Your task to perform on an android device: turn vacation reply on in the gmail app Image 0: 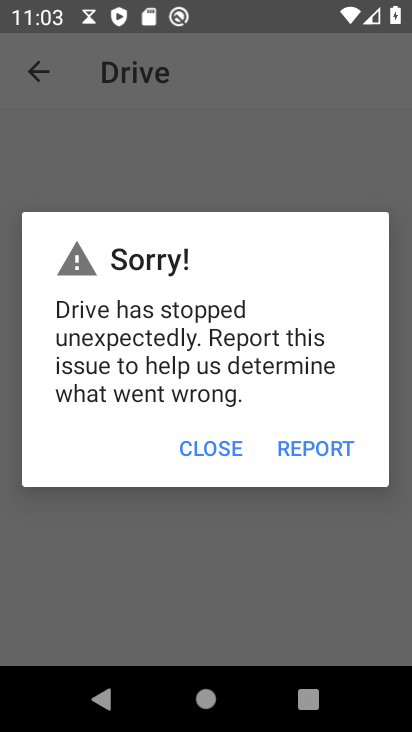
Step 0: press home button
Your task to perform on an android device: turn vacation reply on in the gmail app Image 1: 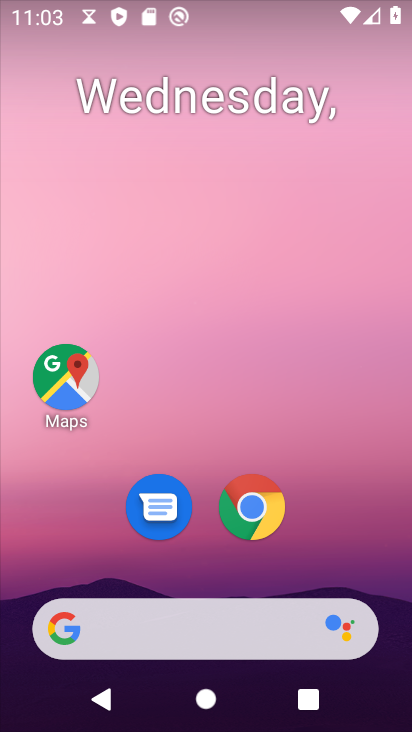
Step 1: drag from (285, 665) to (324, 147)
Your task to perform on an android device: turn vacation reply on in the gmail app Image 2: 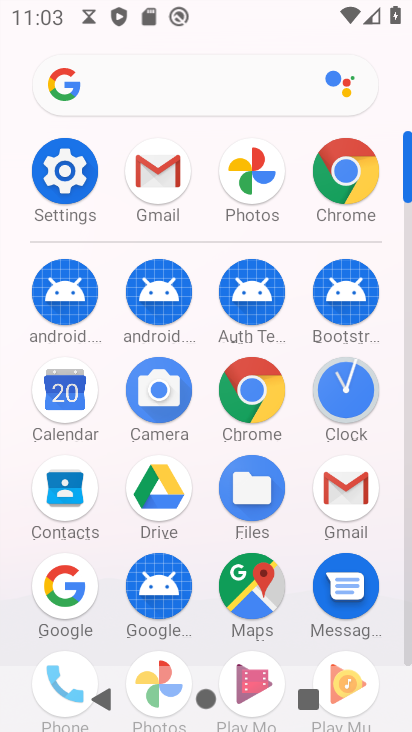
Step 2: click (139, 198)
Your task to perform on an android device: turn vacation reply on in the gmail app Image 3: 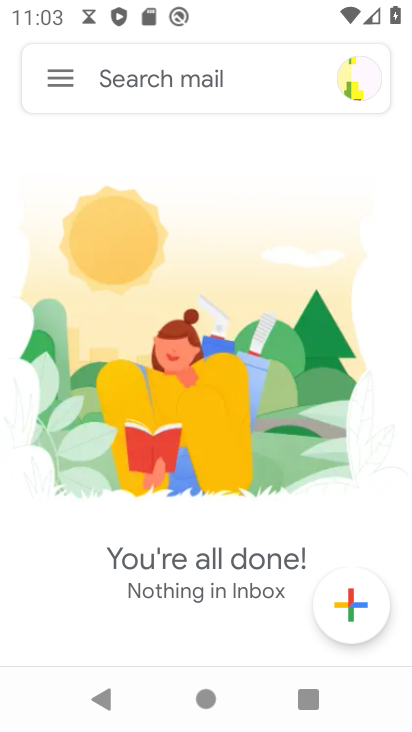
Step 3: click (61, 84)
Your task to perform on an android device: turn vacation reply on in the gmail app Image 4: 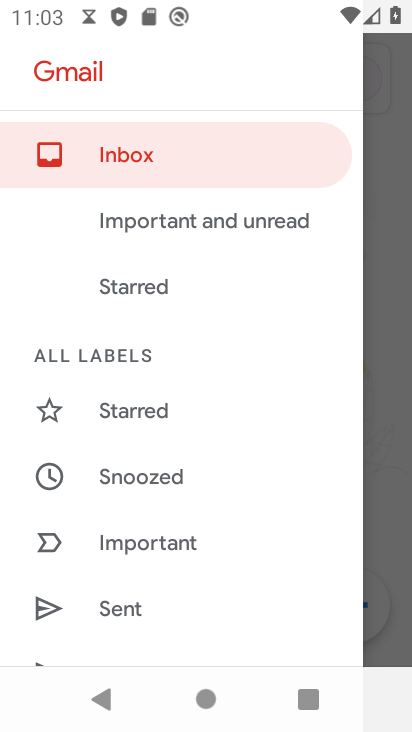
Step 4: drag from (160, 545) to (253, 252)
Your task to perform on an android device: turn vacation reply on in the gmail app Image 5: 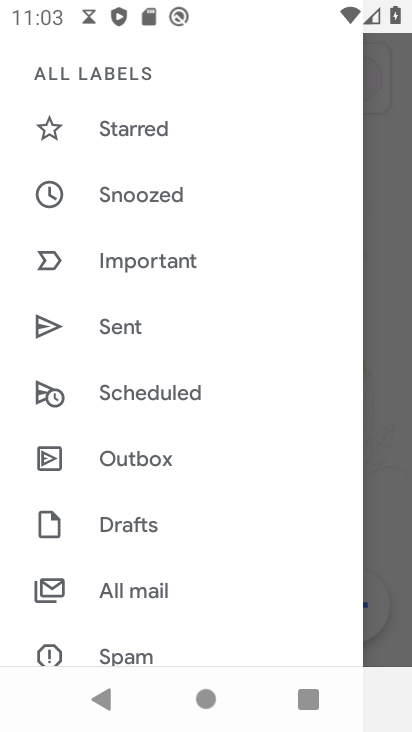
Step 5: drag from (138, 526) to (211, 199)
Your task to perform on an android device: turn vacation reply on in the gmail app Image 6: 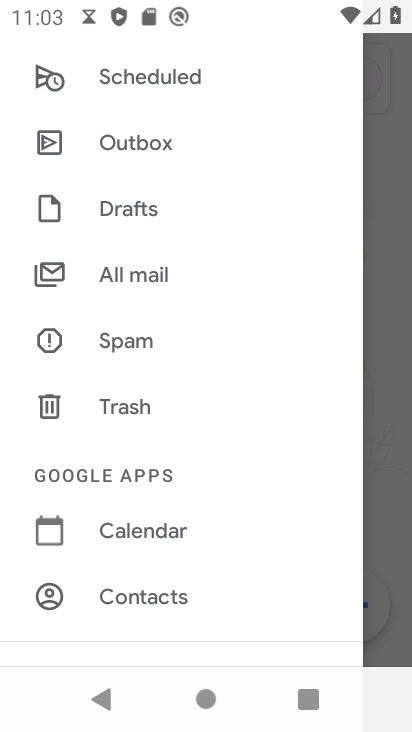
Step 6: drag from (176, 481) to (192, 363)
Your task to perform on an android device: turn vacation reply on in the gmail app Image 7: 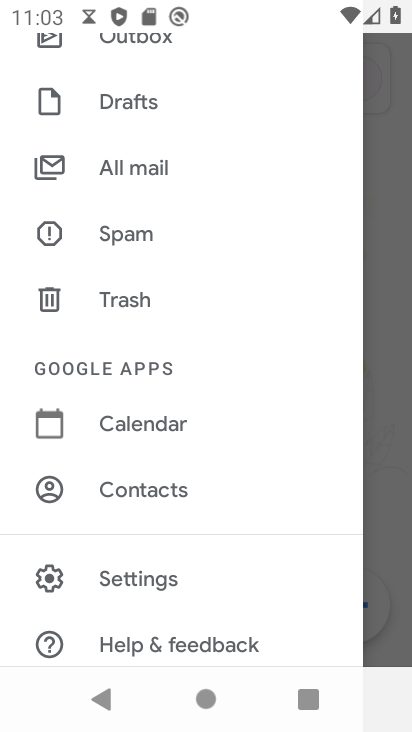
Step 7: click (129, 590)
Your task to perform on an android device: turn vacation reply on in the gmail app Image 8: 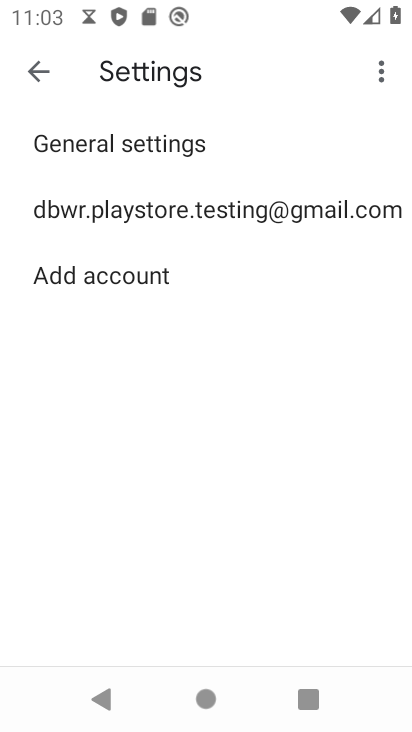
Step 8: click (183, 202)
Your task to perform on an android device: turn vacation reply on in the gmail app Image 9: 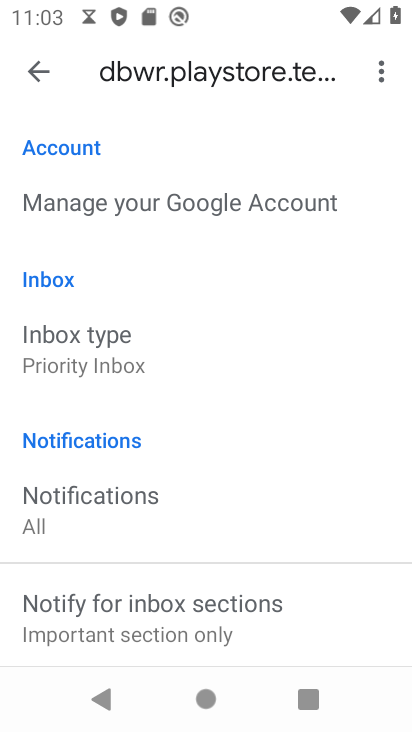
Step 9: drag from (187, 499) to (260, 174)
Your task to perform on an android device: turn vacation reply on in the gmail app Image 10: 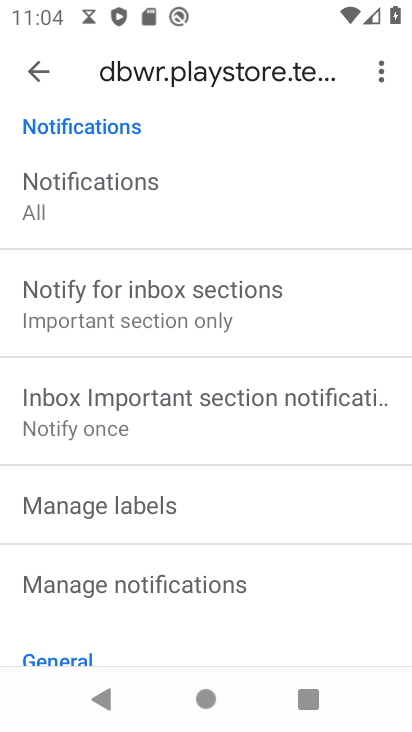
Step 10: drag from (185, 540) to (305, 157)
Your task to perform on an android device: turn vacation reply on in the gmail app Image 11: 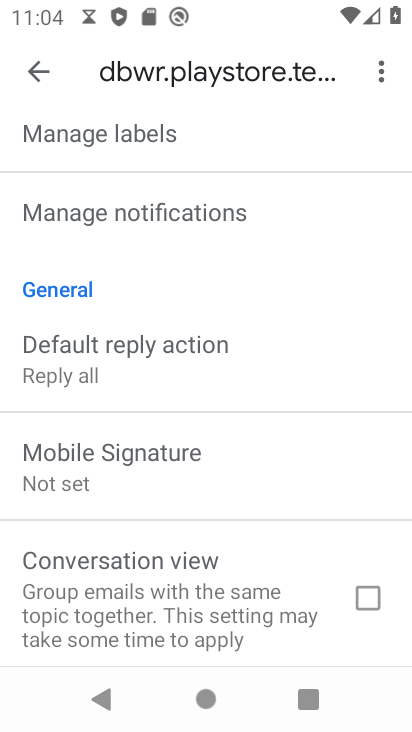
Step 11: drag from (187, 518) to (299, 133)
Your task to perform on an android device: turn vacation reply on in the gmail app Image 12: 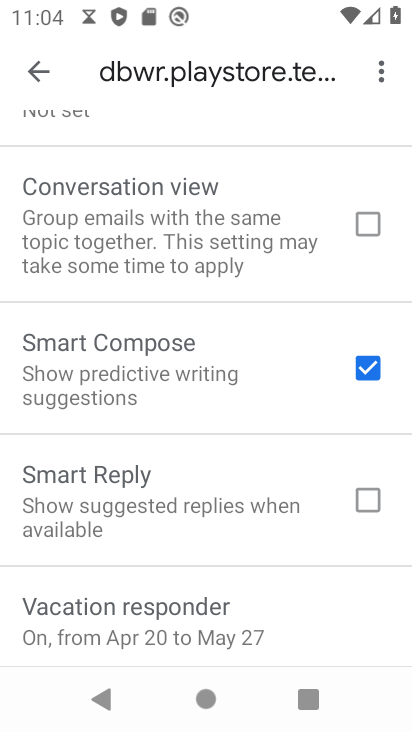
Step 12: click (152, 598)
Your task to perform on an android device: turn vacation reply on in the gmail app Image 13: 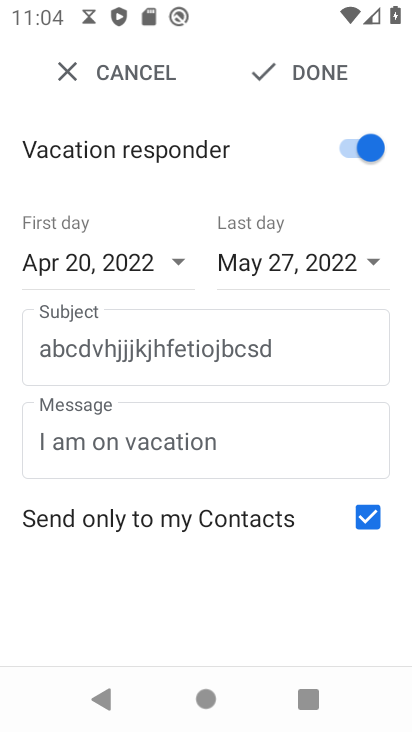
Step 13: task complete